Your task to perform on an android device: see tabs open on other devices in the chrome app Image 0: 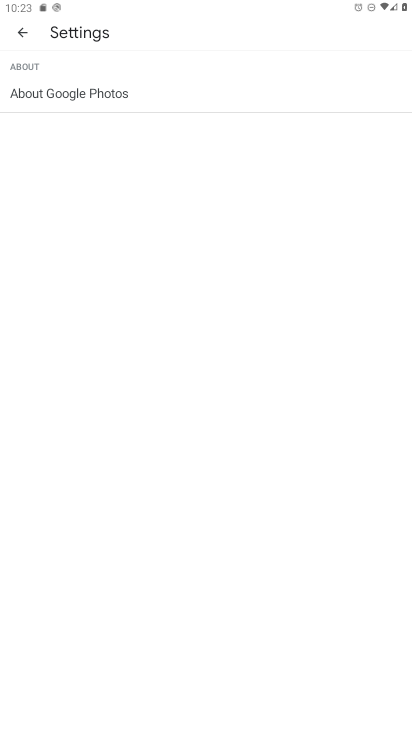
Step 0: press home button
Your task to perform on an android device: see tabs open on other devices in the chrome app Image 1: 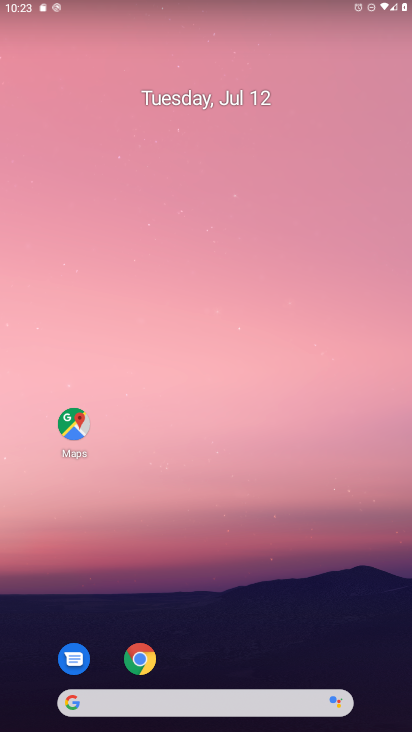
Step 1: click (122, 666)
Your task to perform on an android device: see tabs open on other devices in the chrome app Image 2: 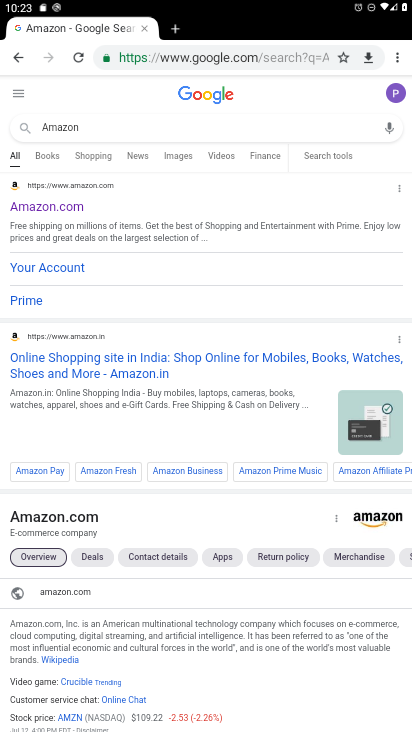
Step 2: click (396, 56)
Your task to perform on an android device: see tabs open on other devices in the chrome app Image 3: 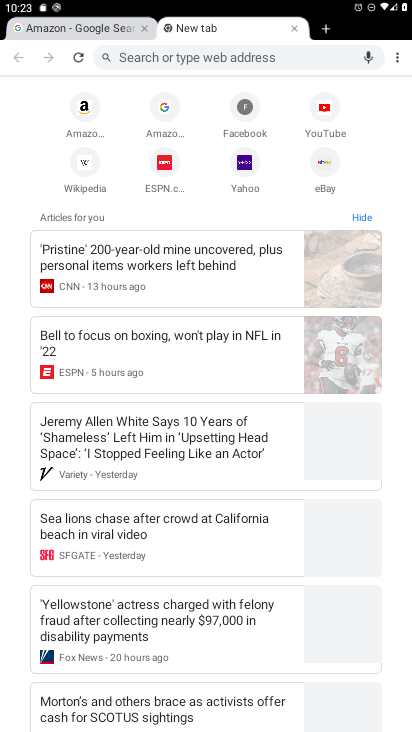
Step 3: task complete